Your task to perform on an android device: Set the phone to "Do not disturb". Image 0: 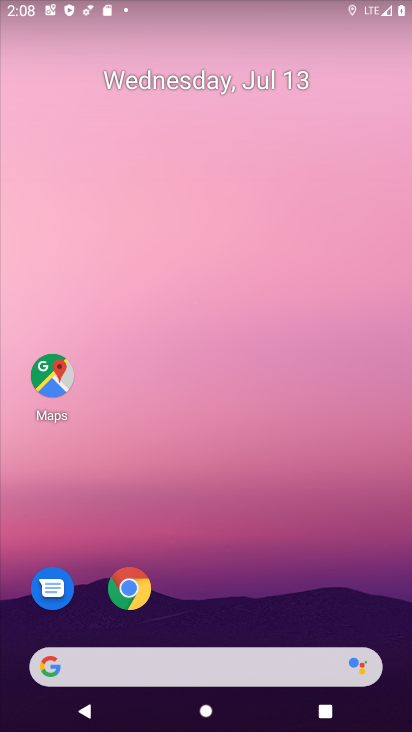
Step 0: drag from (190, 580) to (203, 338)
Your task to perform on an android device: Set the phone to "Do not disturb". Image 1: 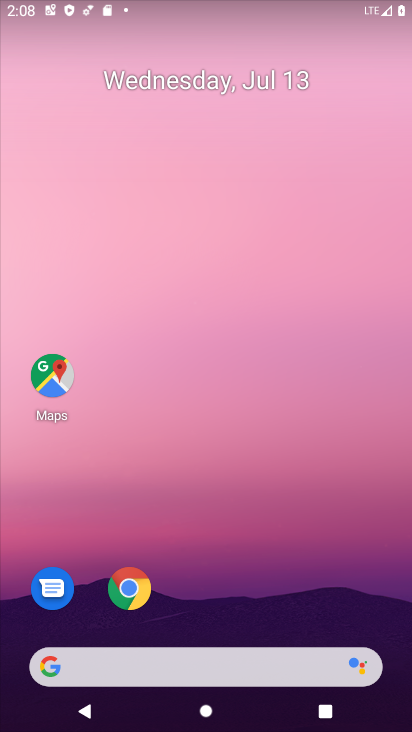
Step 1: drag from (215, 559) to (247, 282)
Your task to perform on an android device: Set the phone to "Do not disturb". Image 2: 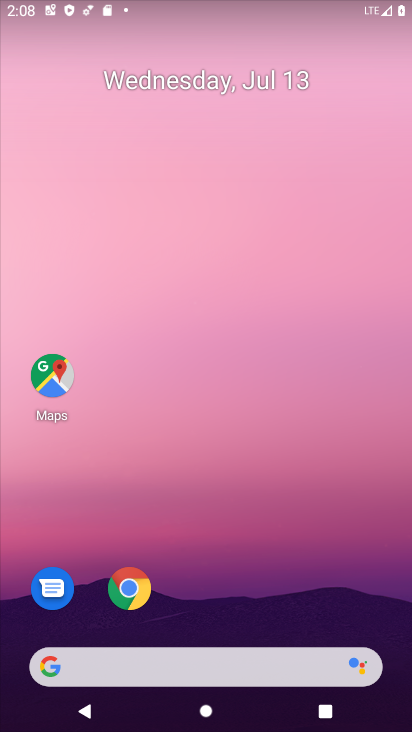
Step 2: drag from (155, 611) to (162, 320)
Your task to perform on an android device: Set the phone to "Do not disturb". Image 3: 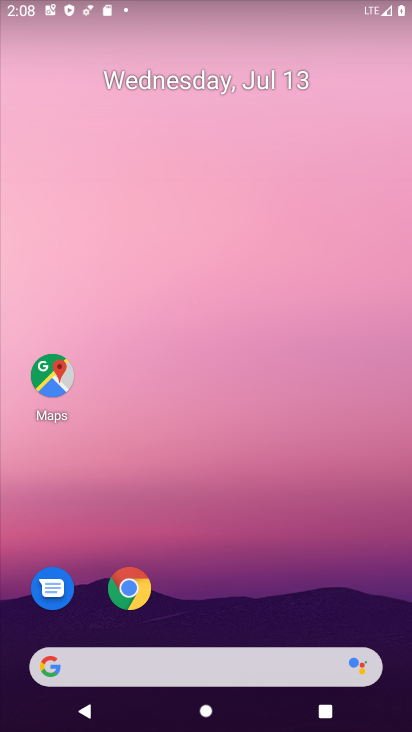
Step 3: drag from (177, 600) to (203, 359)
Your task to perform on an android device: Set the phone to "Do not disturb". Image 4: 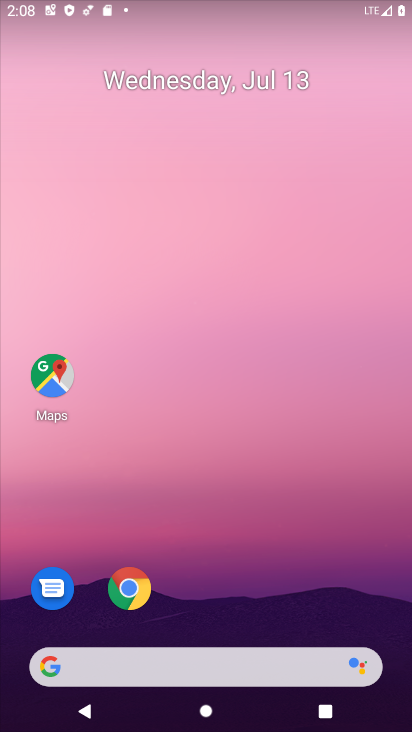
Step 4: drag from (176, 562) to (220, 230)
Your task to perform on an android device: Set the phone to "Do not disturb". Image 5: 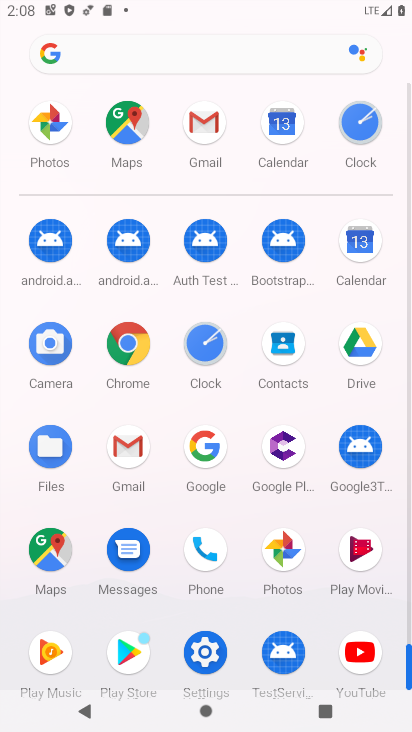
Step 5: drag from (177, 589) to (263, 245)
Your task to perform on an android device: Set the phone to "Do not disturb". Image 6: 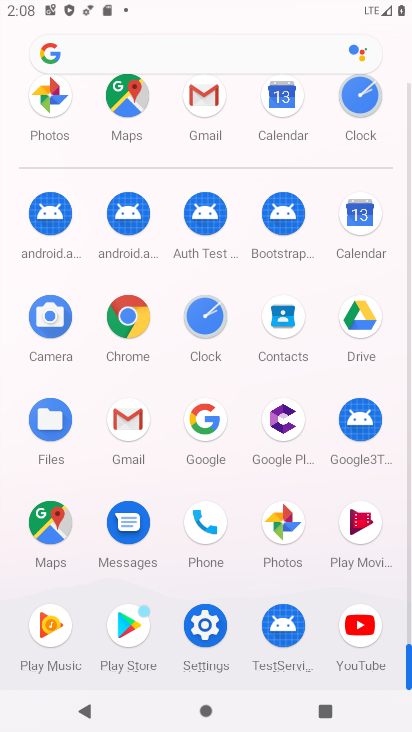
Step 6: click (216, 621)
Your task to perform on an android device: Set the phone to "Do not disturb". Image 7: 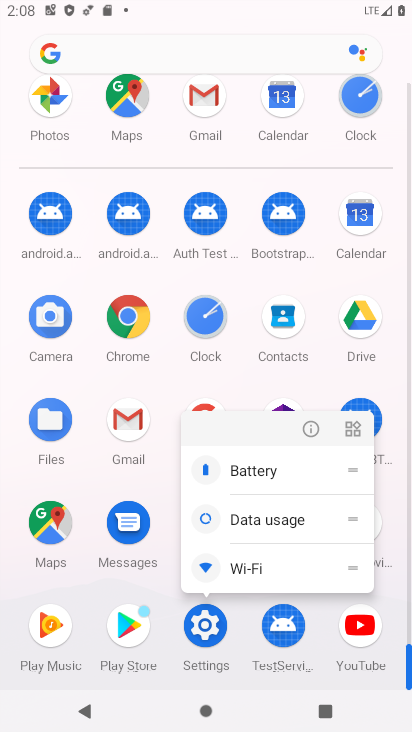
Step 7: click (309, 430)
Your task to perform on an android device: Set the phone to "Do not disturb". Image 8: 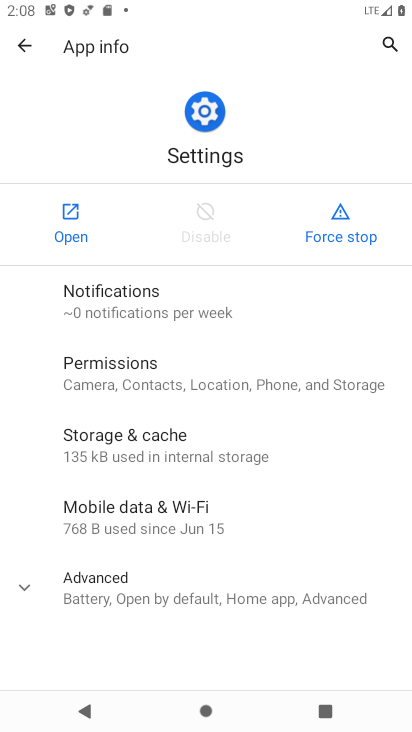
Step 8: click (69, 236)
Your task to perform on an android device: Set the phone to "Do not disturb". Image 9: 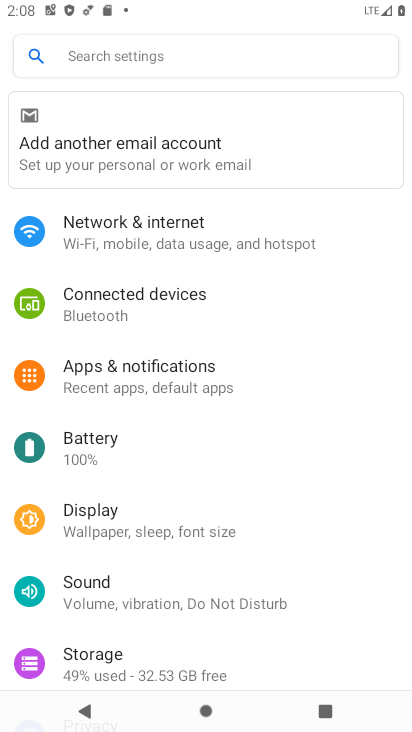
Step 9: drag from (176, 644) to (263, 310)
Your task to perform on an android device: Set the phone to "Do not disturb". Image 10: 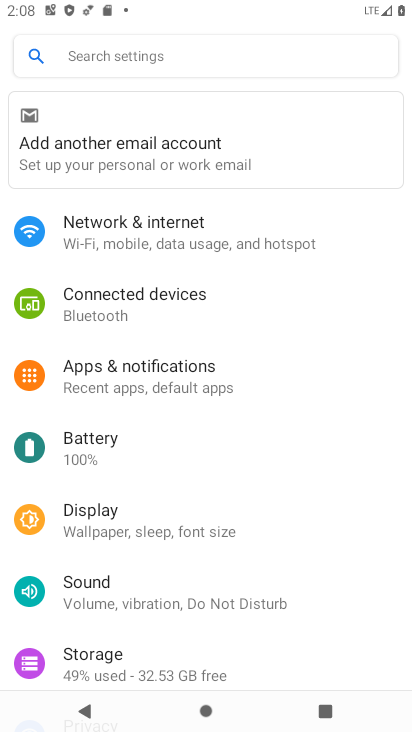
Step 10: click (129, 378)
Your task to perform on an android device: Set the phone to "Do not disturb". Image 11: 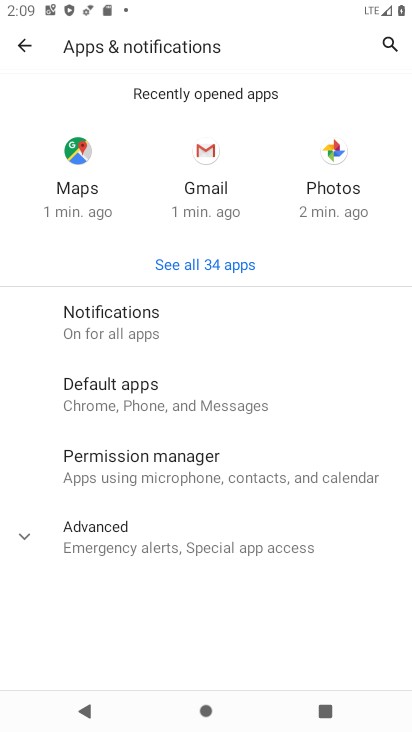
Step 11: click (122, 529)
Your task to perform on an android device: Set the phone to "Do not disturb". Image 12: 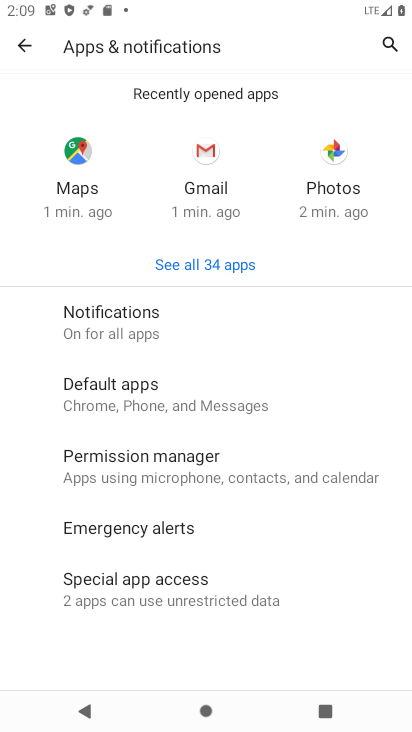
Step 12: drag from (229, 602) to (289, 283)
Your task to perform on an android device: Set the phone to "Do not disturb". Image 13: 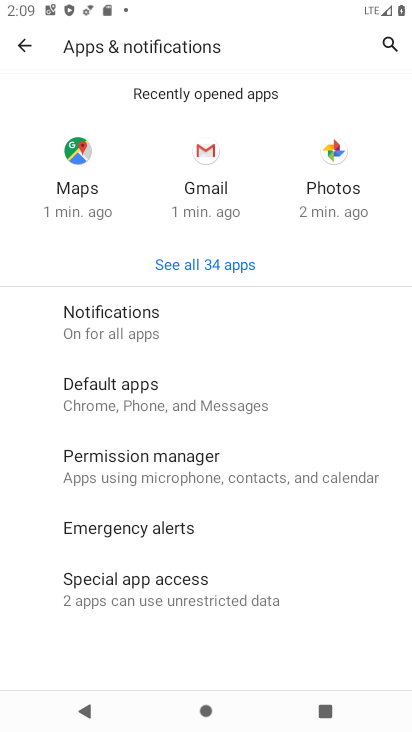
Step 13: click (147, 579)
Your task to perform on an android device: Set the phone to "Do not disturb". Image 14: 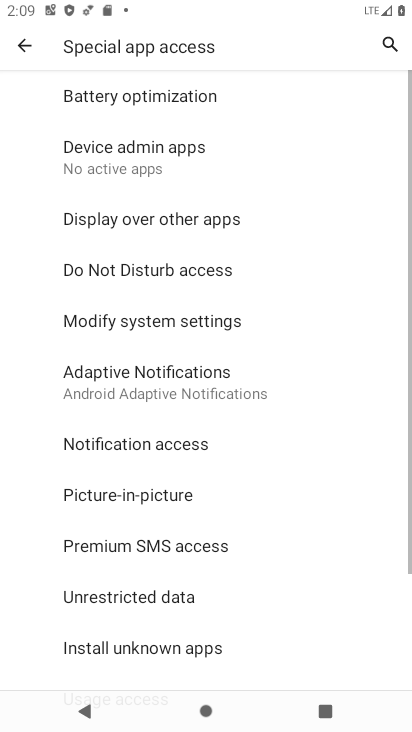
Step 14: drag from (193, 512) to (312, 163)
Your task to perform on an android device: Set the phone to "Do not disturb". Image 15: 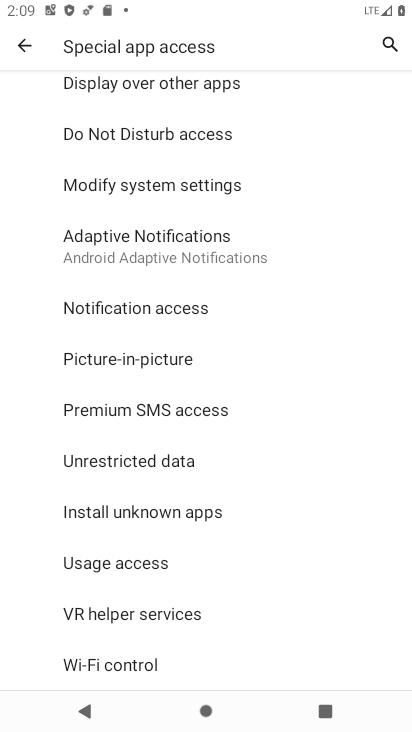
Step 15: click (18, 49)
Your task to perform on an android device: Set the phone to "Do not disturb". Image 16: 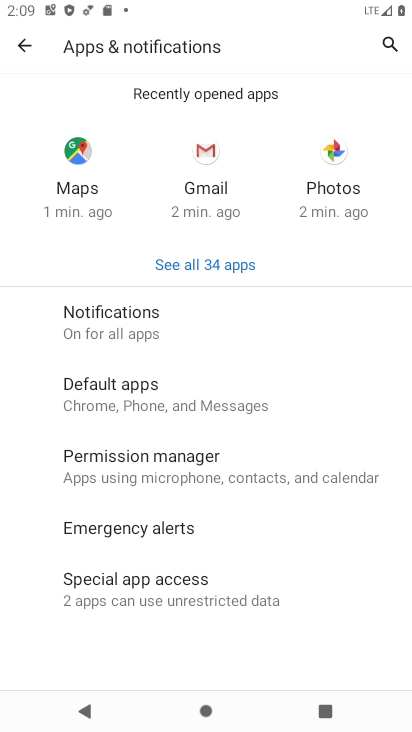
Step 16: drag from (236, 493) to (222, 245)
Your task to perform on an android device: Set the phone to "Do not disturb". Image 17: 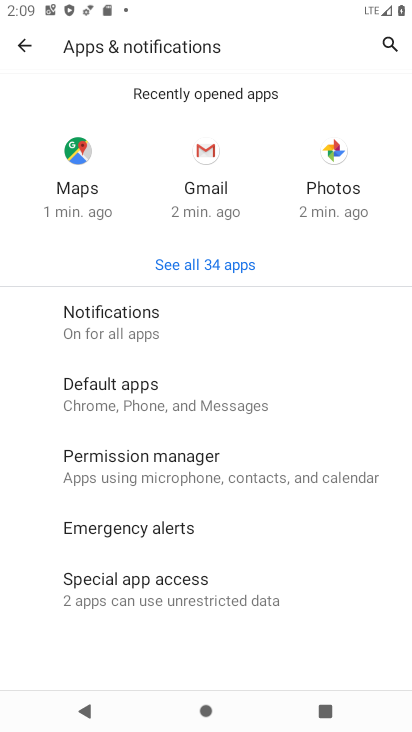
Step 17: click (180, 318)
Your task to perform on an android device: Set the phone to "Do not disturb". Image 18: 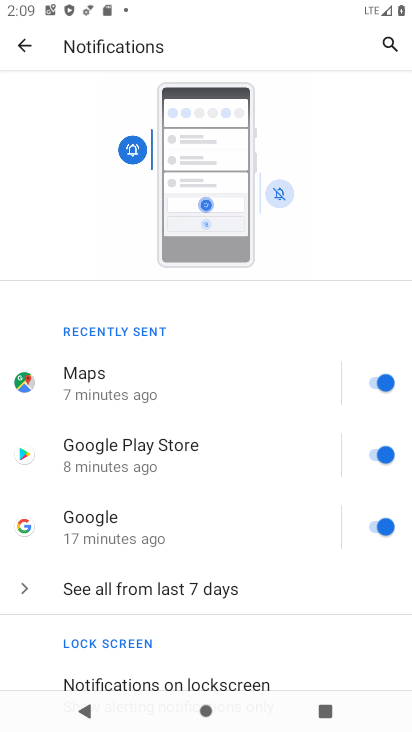
Step 18: drag from (215, 590) to (316, 129)
Your task to perform on an android device: Set the phone to "Do not disturb". Image 19: 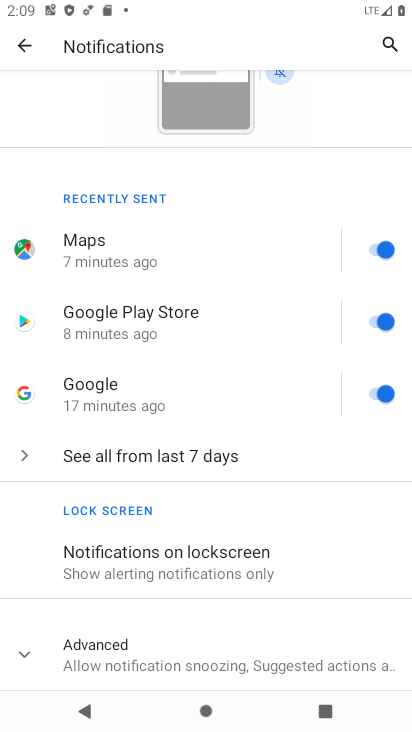
Step 19: click (172, 675)
Your task to perform on an android device: Set the phone to "Do not disturb". Image 20: 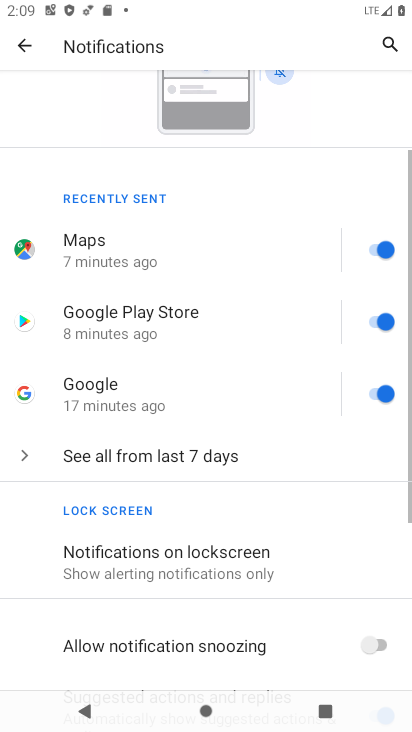
Step 20: drag from (172, 659) to (282, 227)
Your task to perform on an android device: Set the phone to "Do not disturb". Image 21: 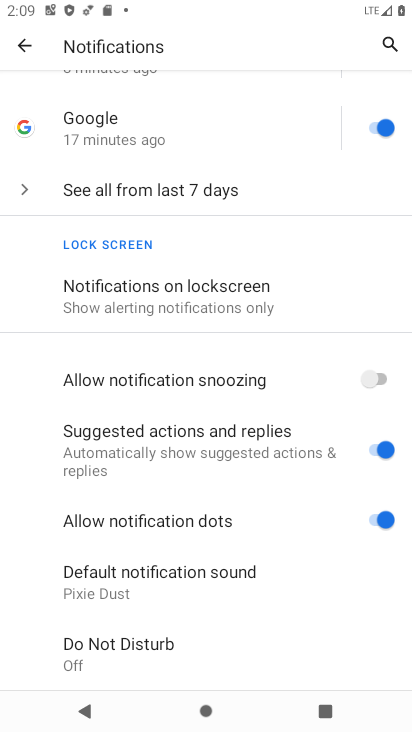
Step 21: click (134, 655)
Your task to perform on an android device: Set the phone to "Do not disturb". Image 22: 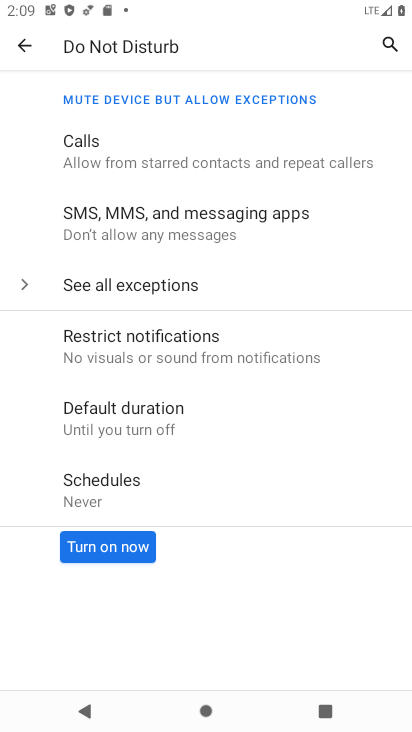
Step 22: click (126, 545)
Your task to perform on an android device: Set the phone to "Do not disturb". Image 23: 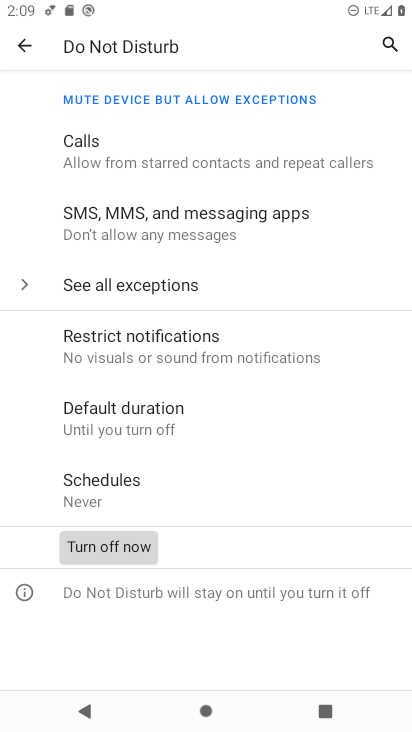
Step 23: task complete